Your task to perform on an android device: Open my contact list Image 0: 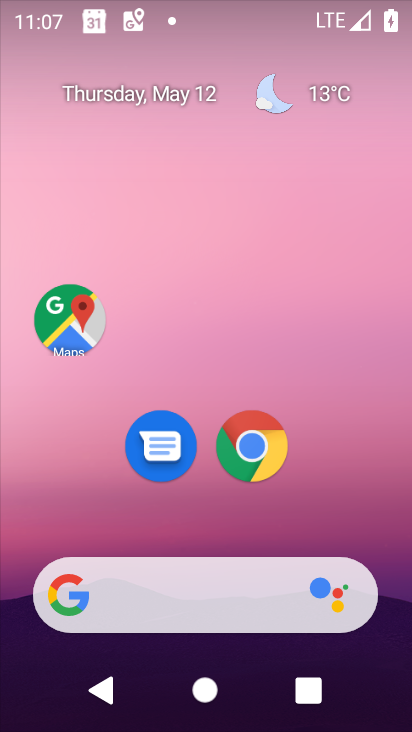
Step 0: drag from (319, 586) to (240, 1)
Your task to perform on an android device: Open my contact list Image 1: 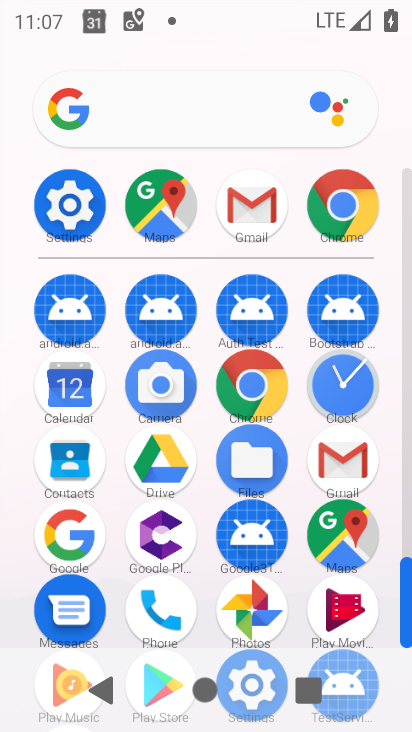
Step 1: click (78, 473)
Your task to perform on an android device: Open my contact list Image 2: 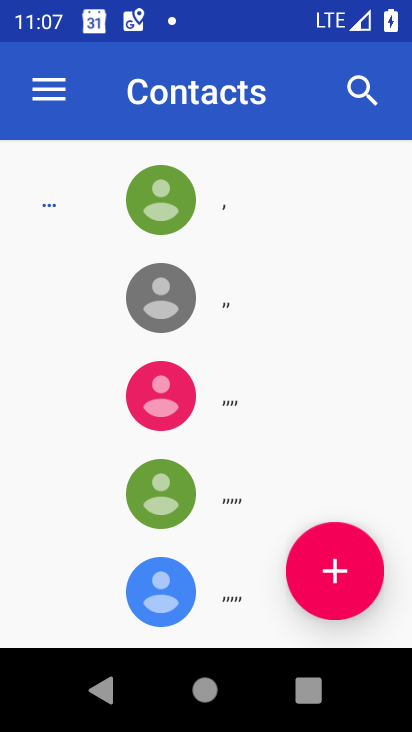
Step 2: task complete